Your task to perform on an android device: Search for the best 100% cotton t-shirts Image 0: 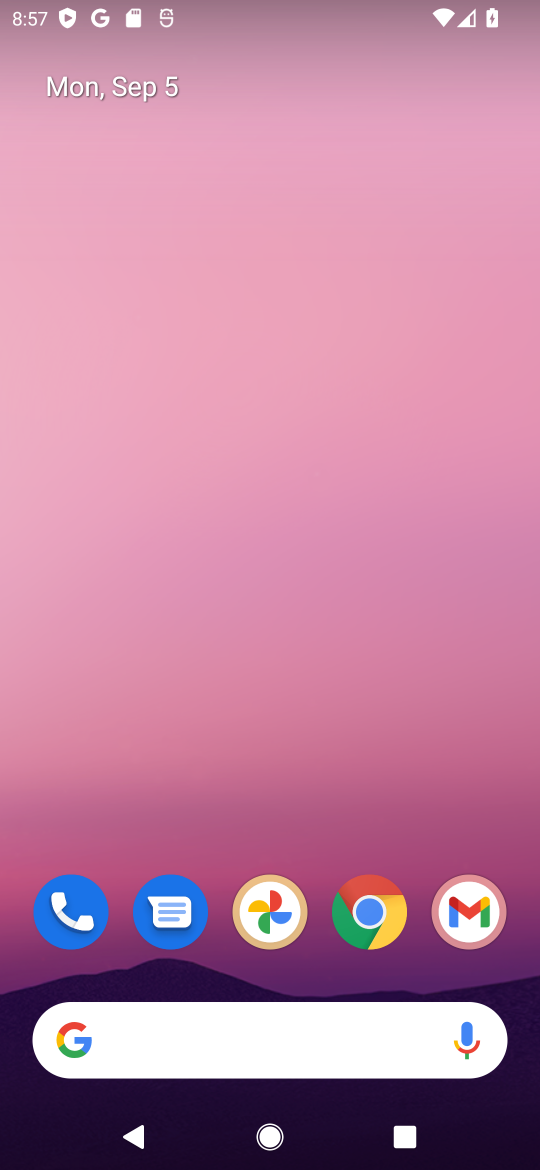
Step 0: click (391, 931)
Your task to perform on an android device: Search for the best 100% cotton t-shirts Image 1: 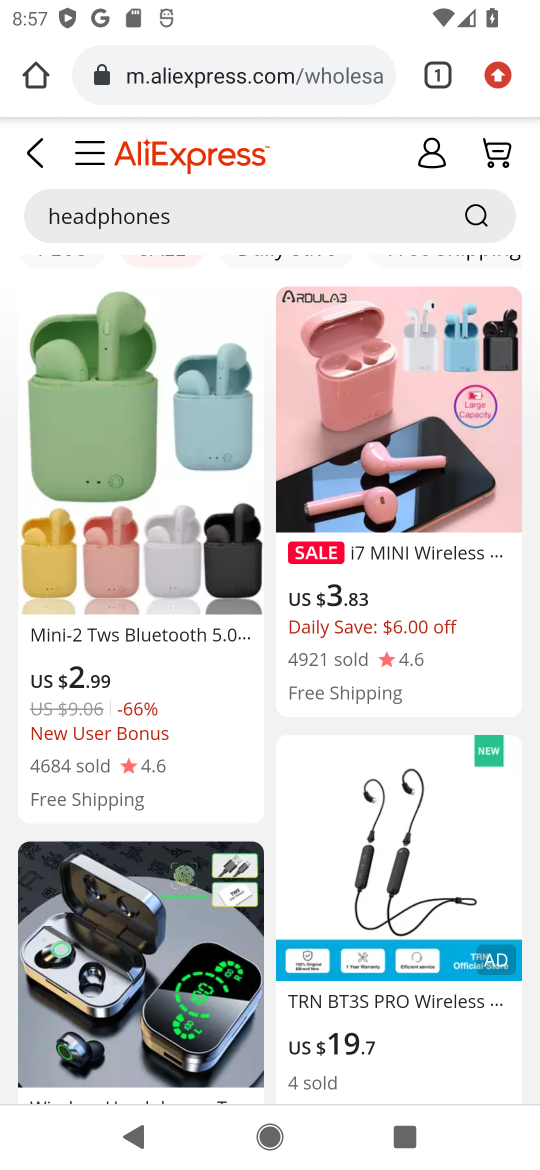
Step 1: click (242, 82)
Your task to perform on an android device: Search for the best 100% cotton t-shirts Image 2: 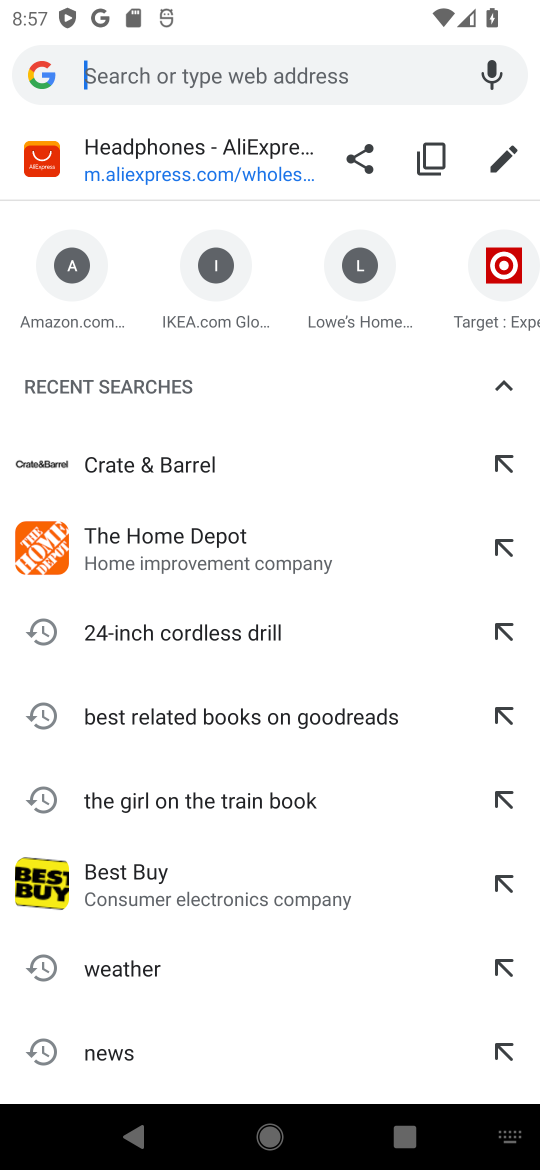
Step 2: click (184, 70)
Your task to perform on an android device: Search for the best 100% cotton t-shirts Image 3: 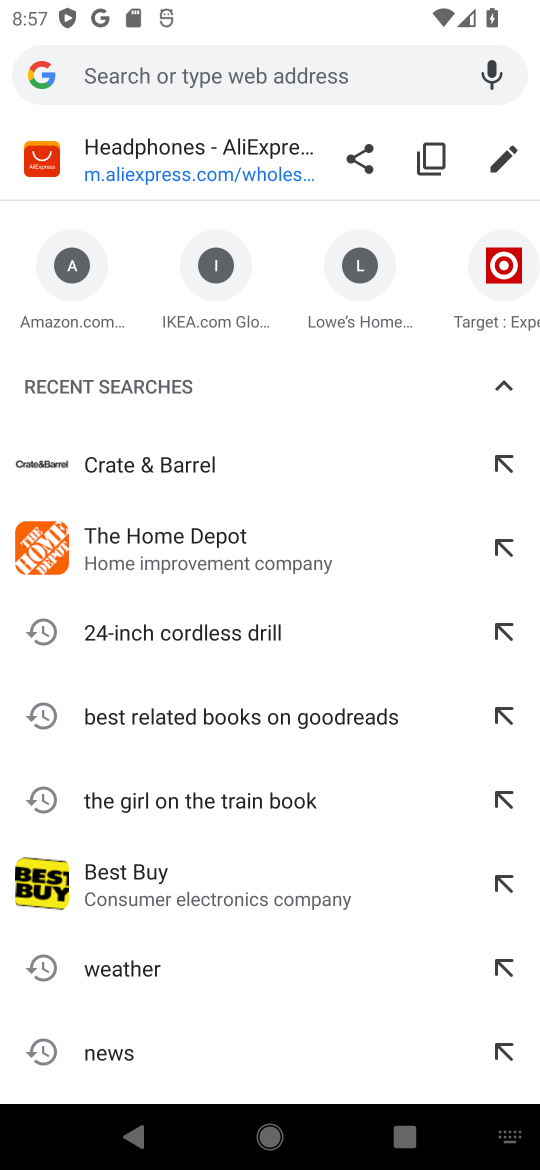
Step 3: type "best 100% cotton t-shirts"
Your task to perform on an android device: Search for the best 100% cotton t-shirts Image 4: 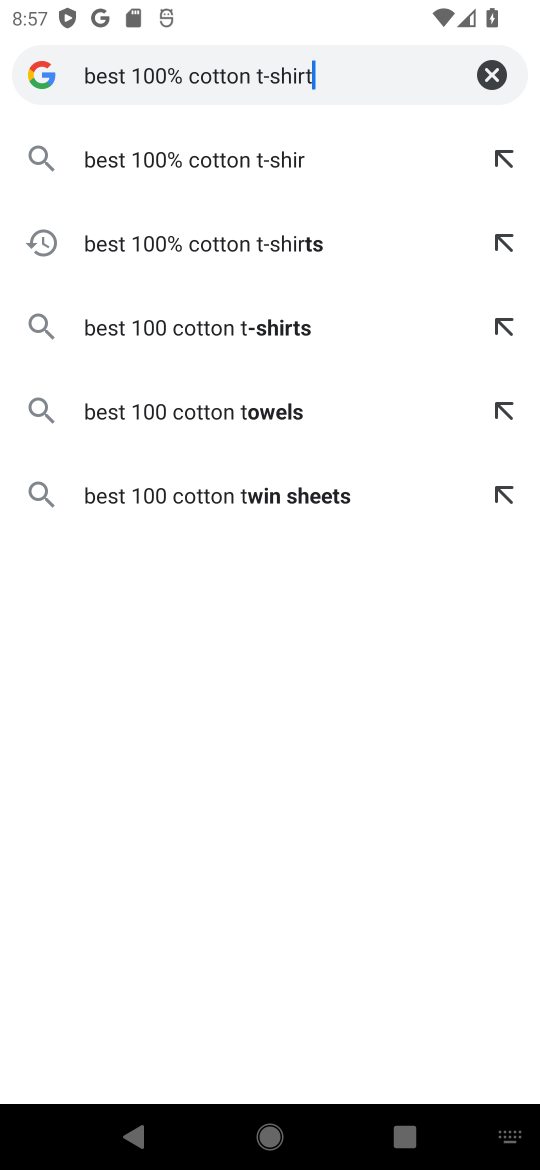
Step 4: press enter
Your task to perform on an android device: Search for the best 100% cotton t-shirts Image 5: 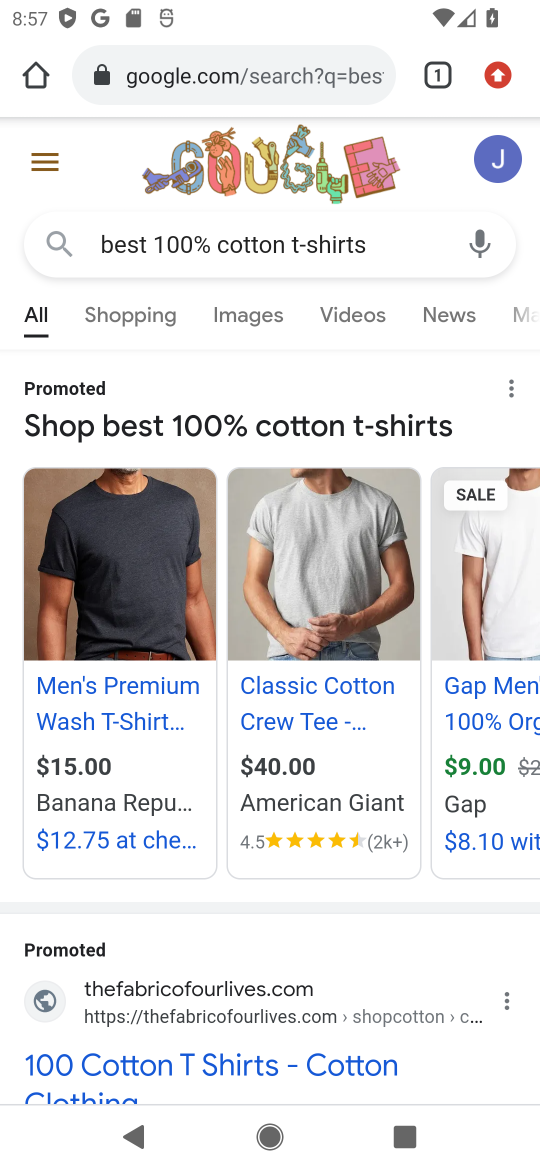
Step 5: drag from (370, 809) to (317, 456)
Your task to perform on an android device: Search for the best 100% cotton t-shirts Image 6: 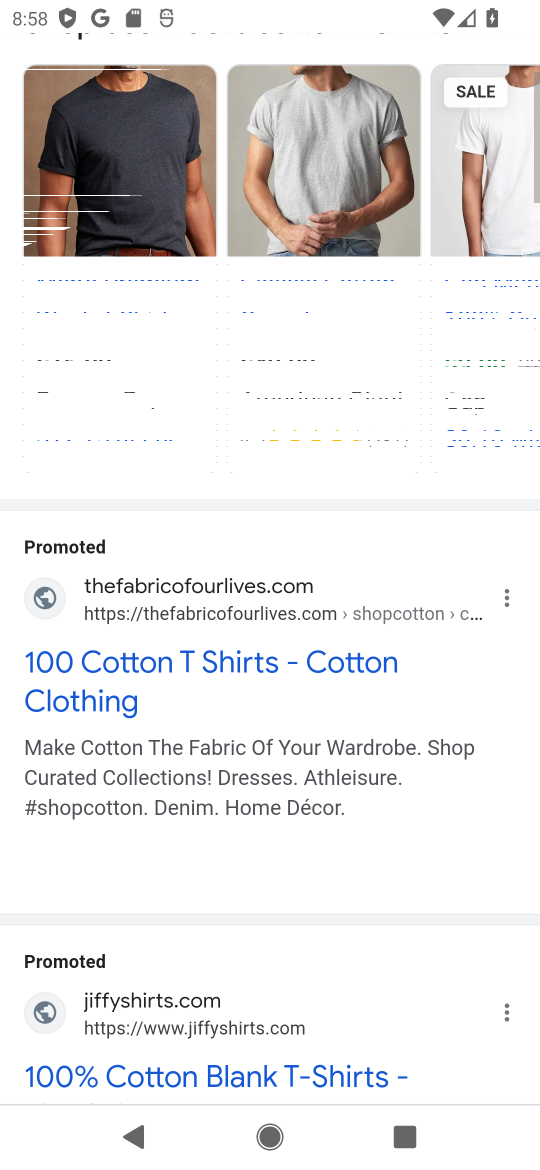
Step 6: drag from (283, 776) to (284, 396)
Your task to perform on an android device: Search for the best 100% cotton t-shirts Image 7: 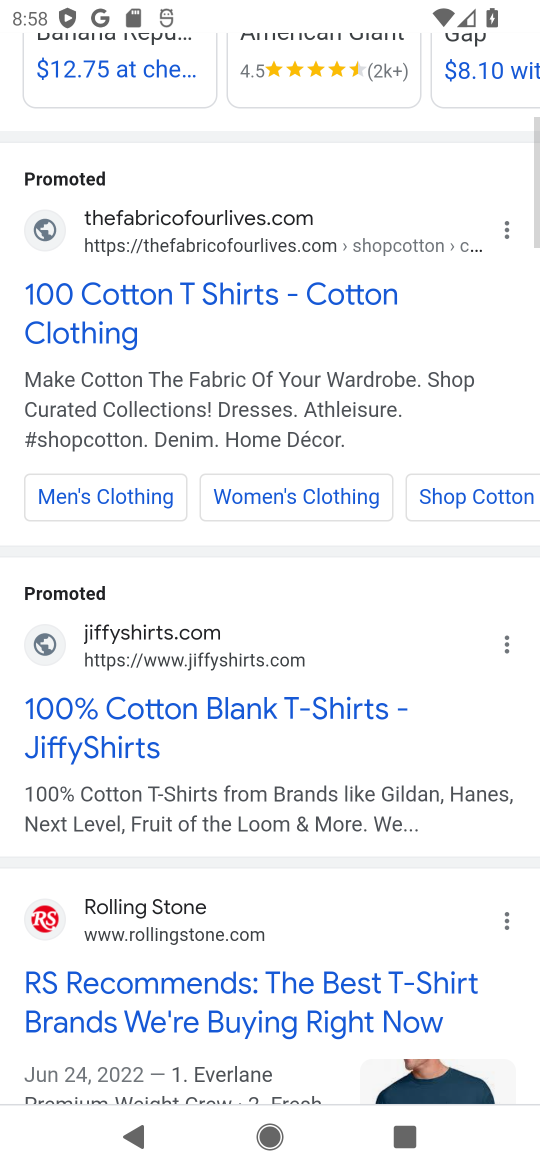
Step 7: drag from (353, 945) to (299, 433)
Your task to perform on an android device: Search for the best 100% cotton t-shirts Image 8: 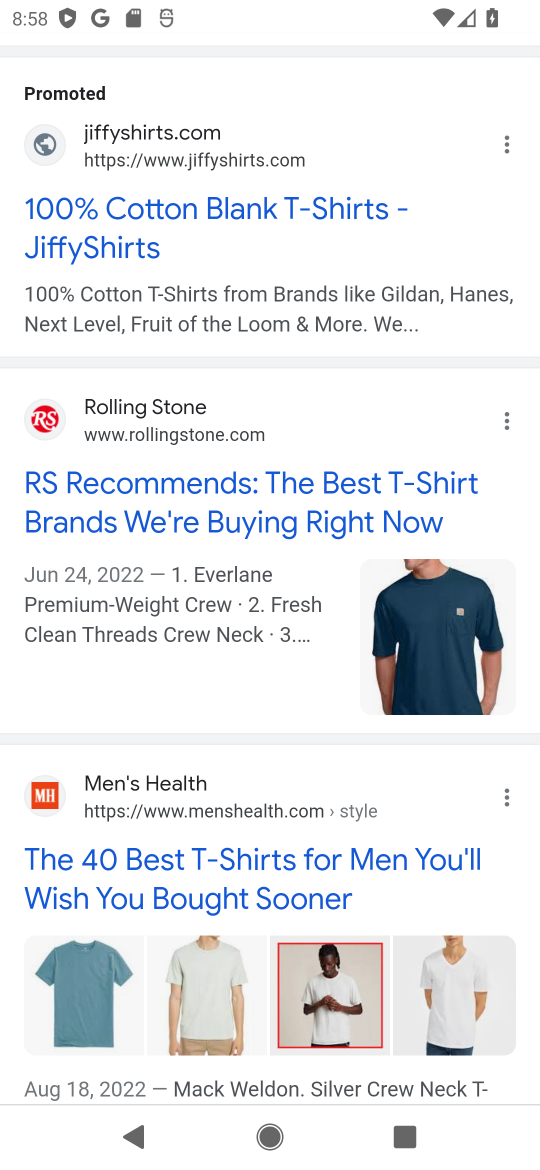
Step 8: drag from (321, 423) to (321, 220)
Your task to perform on an android device: Search for the best 100% cotton t-shirts Image 9: 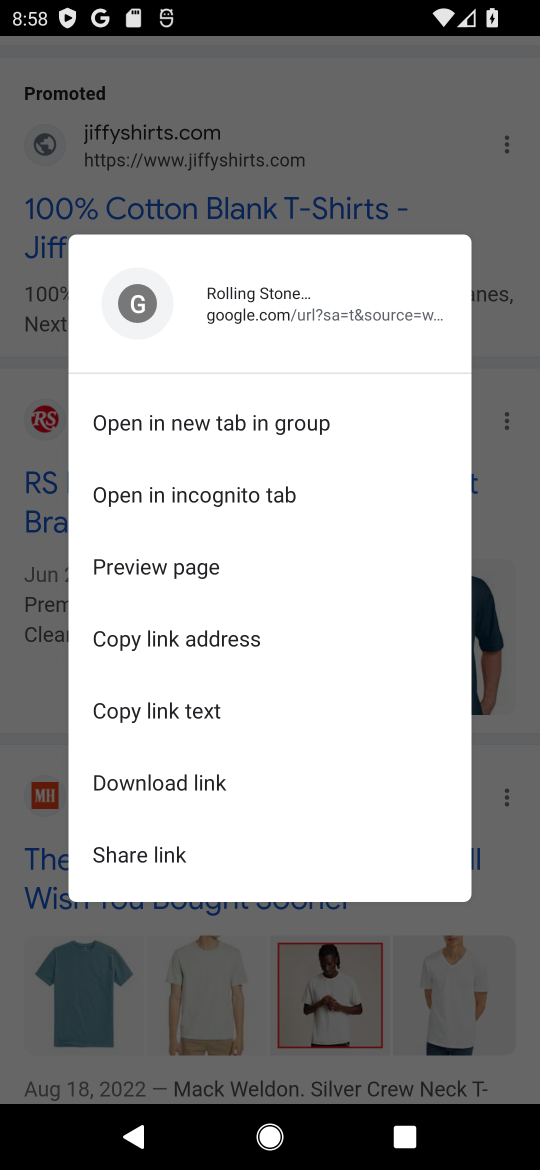
Step 9: click (512, 652)
Your task to perform on an android device: Search for the best 100% cotton t-shirts Image 10: 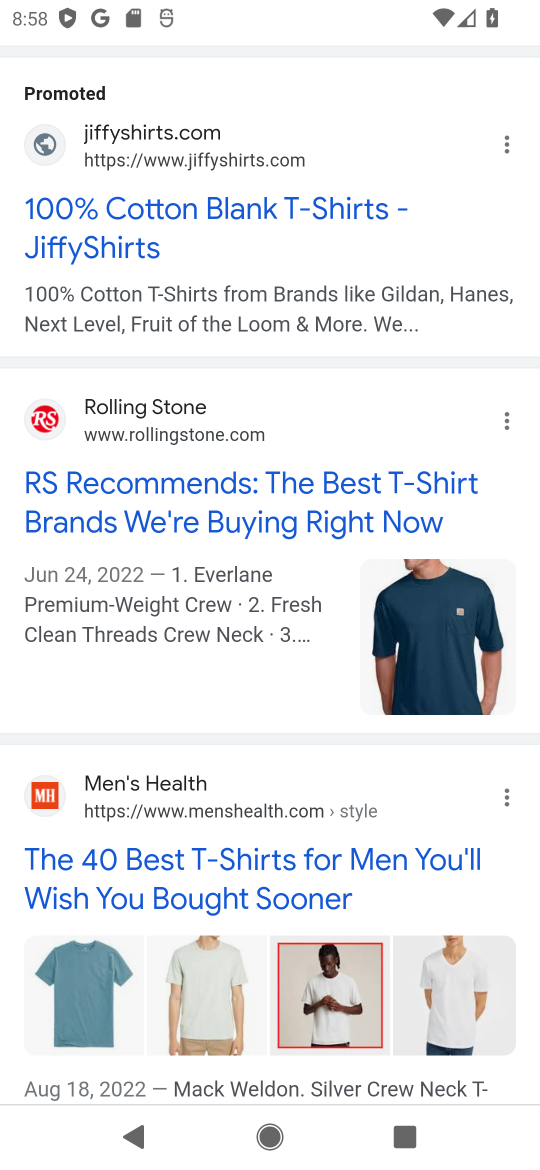
Step 10: drag from (427, 765) to (452, 343)
Your task to perform on an android device: Search for the best 100% cotton t-shirts Image 11: 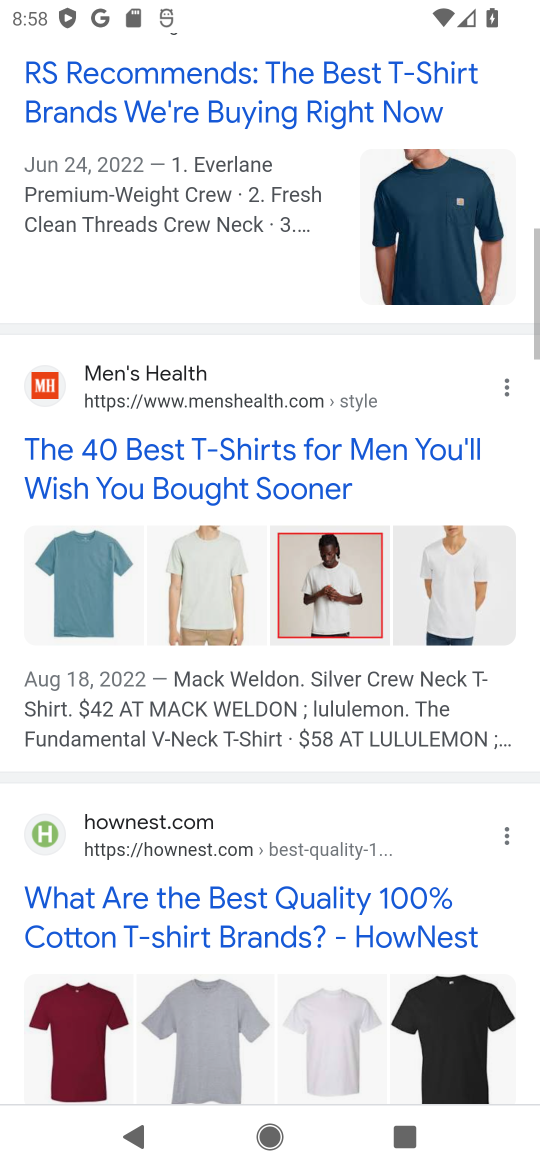
Step 11: drag from (302, 731) to (353, 449)
Your task to perform on an android device: Search for the best 100% cotton t-shirts Image 12: 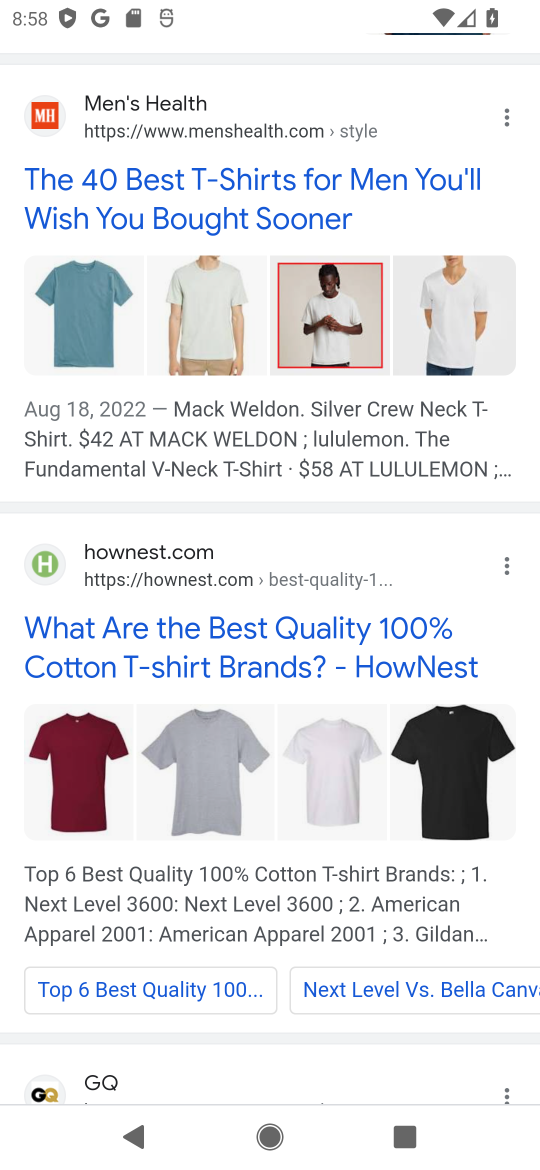
Step 12: drag from (447, 900) to (430, 516)
Your task to perform on an android device: Search for the best 100% cotton t-shirts Image 13: 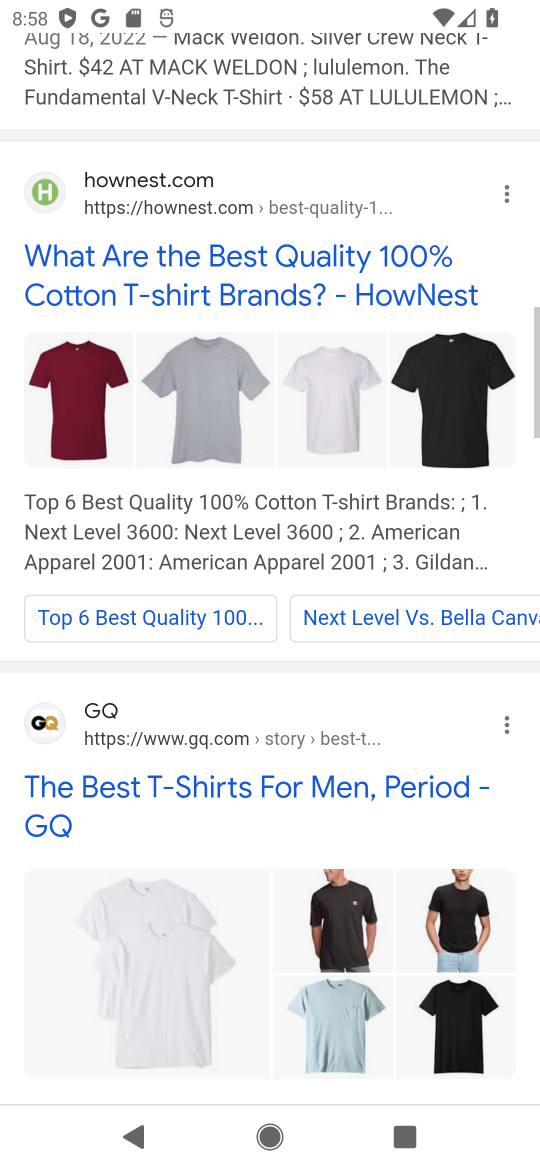
Step 13: drag from (431, 639) to (443, 557)
Your task to perform on an android device: Search for the best 100% cotton t-shirts Image 14: 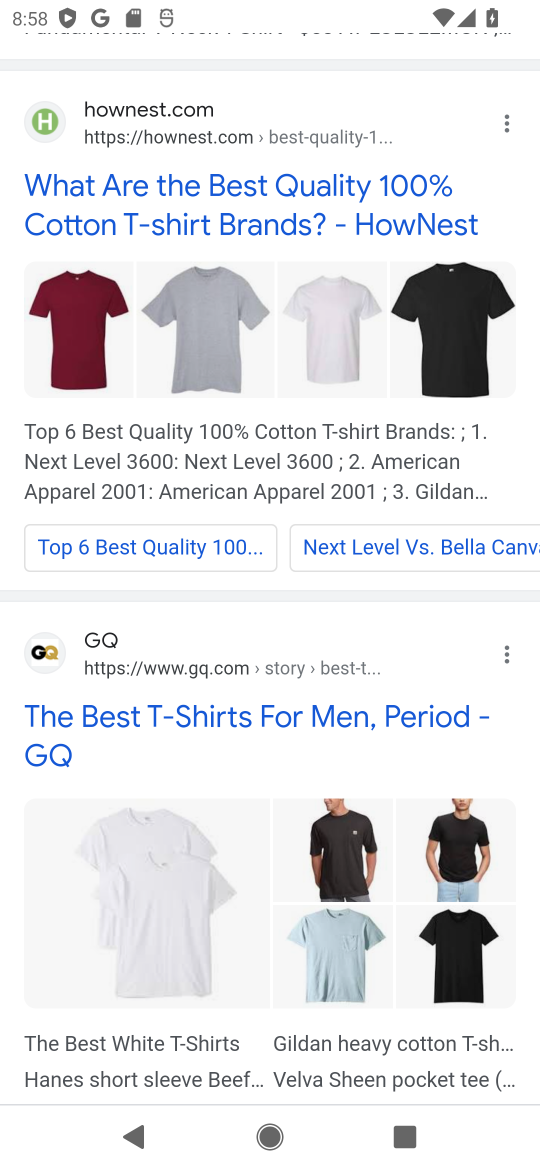
Step 14: drag from (393, 790) to (450, 467)
Your task to perform on an android device: Search for the best 100% cotton t-shirts Image 15: 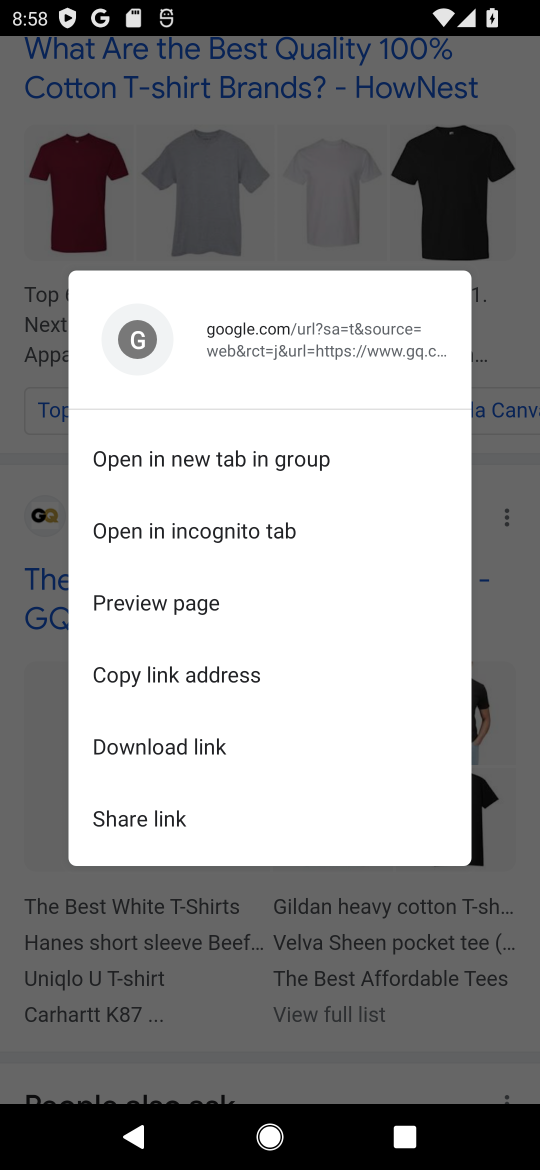
Step 15: click (517, 563)
Your task to perform on an android device: Search for the best 100% cotton t-shirts Image 16: 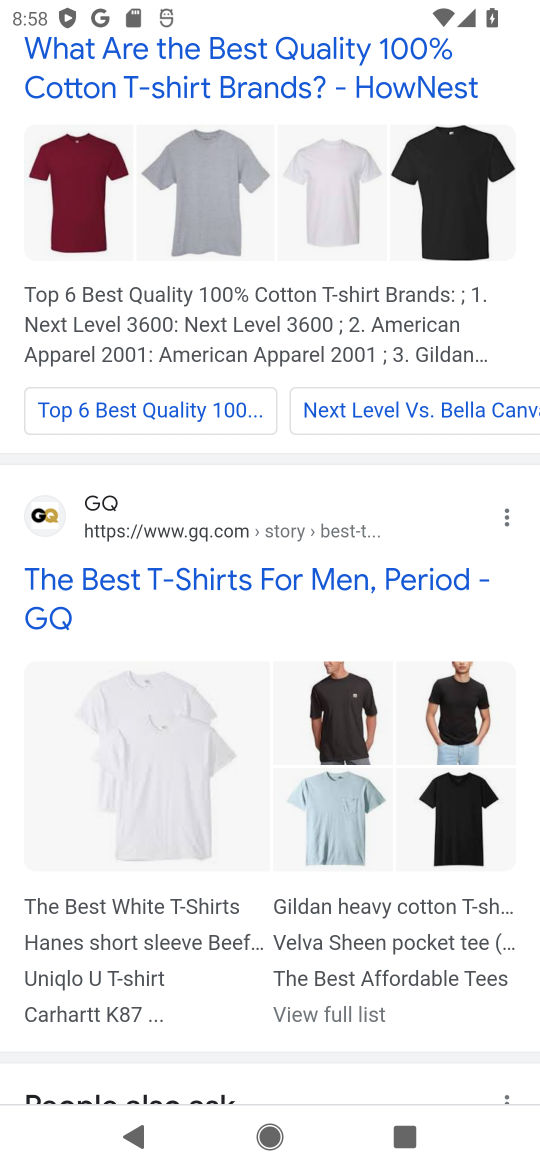
Step 16: task complete